Your task to perform on an android device: turn on javascript in the chrome app Image 0: 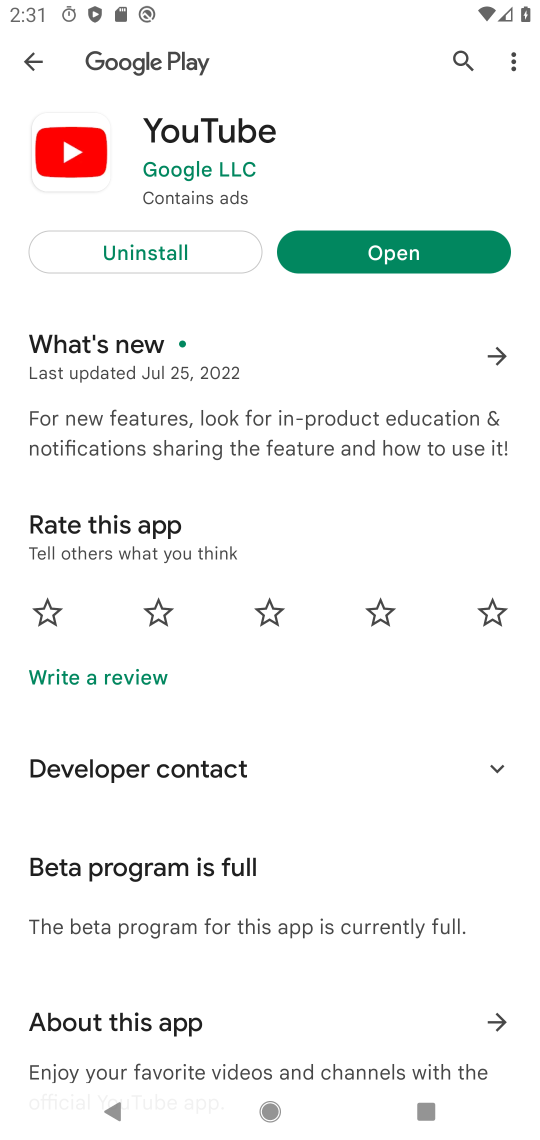
Step 0: press home button
Your task to perform on an android device: turn on javascript in the chrome app Image 1: 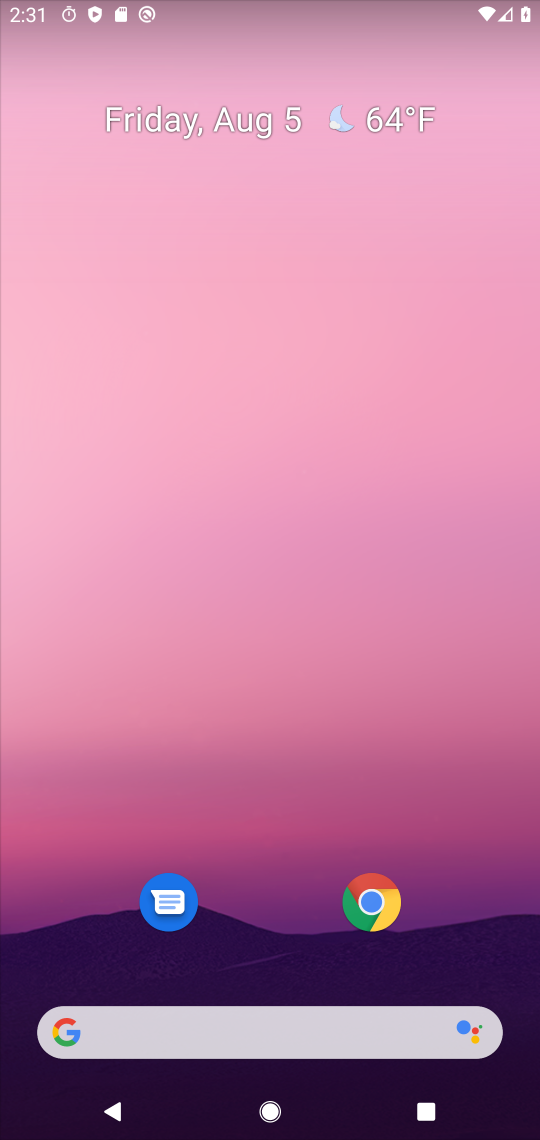
Step 1: drag from (335, 1075) to (259, 277)
Your task to perform on an android device: turn on javascript in the chrome app Image 2: 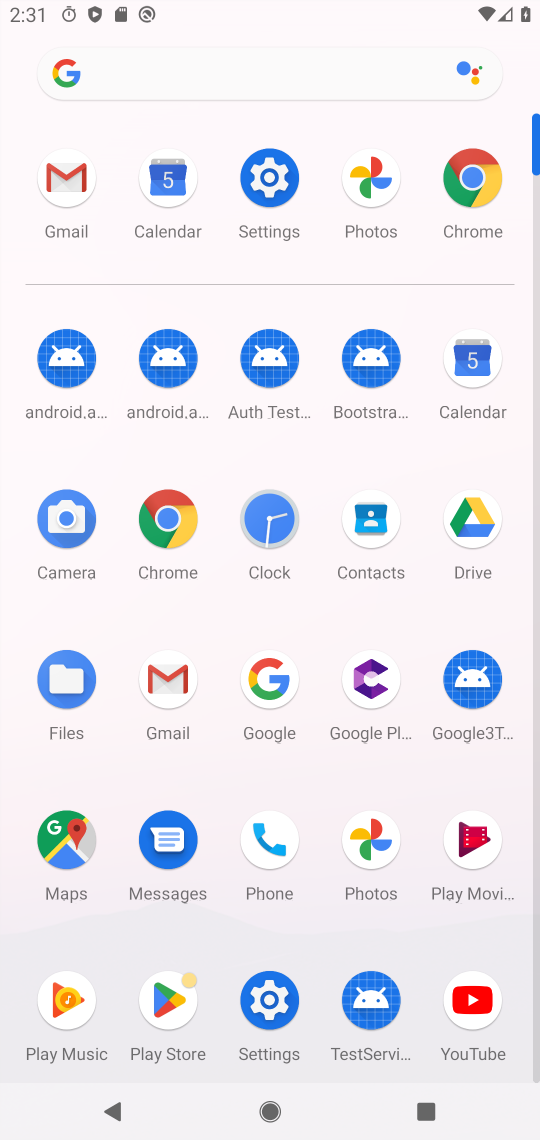
Step 2: click (164, 542)
Your task to perform on an android device: turn on javascript in the chrome app Image 3: 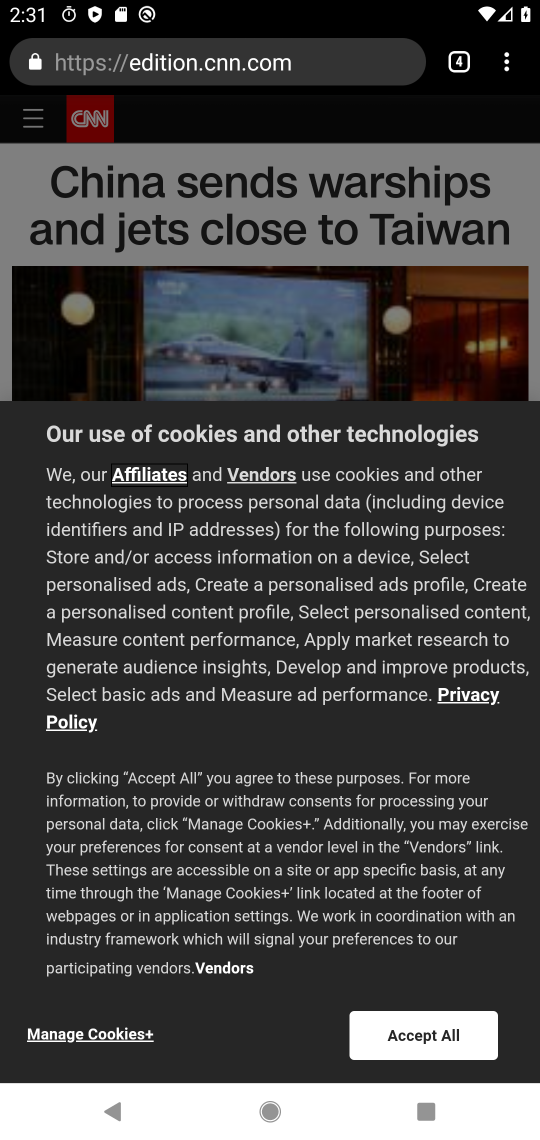
Step 3: click (497, 69)
Your task to perform on an android device: turn on javascript in the chrome app Image 4: 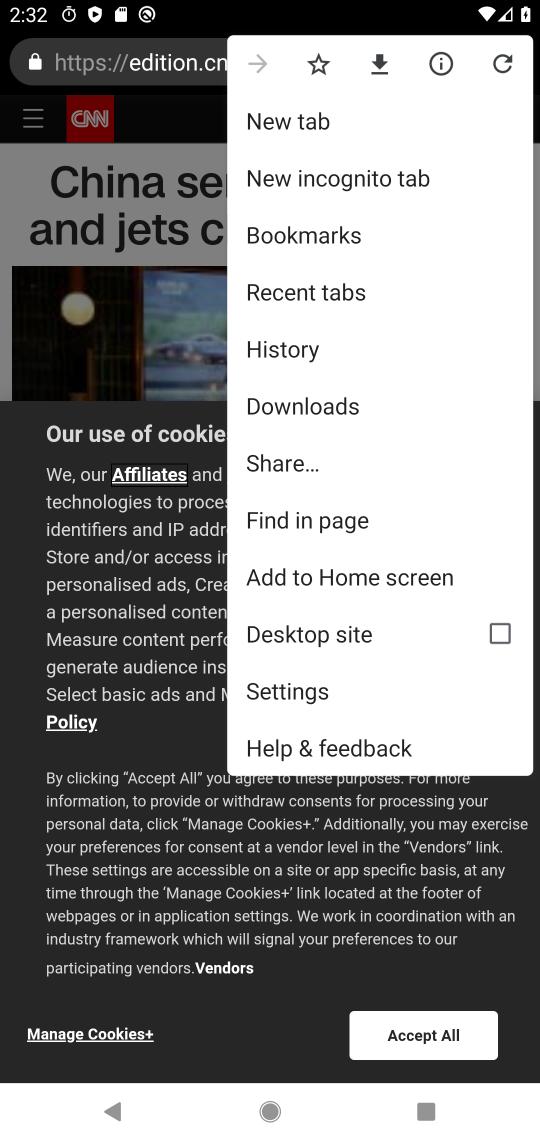
Step 4: click (279, 698)
Your task to perform on an android device: turn on javascript in the chrome app Image 5: 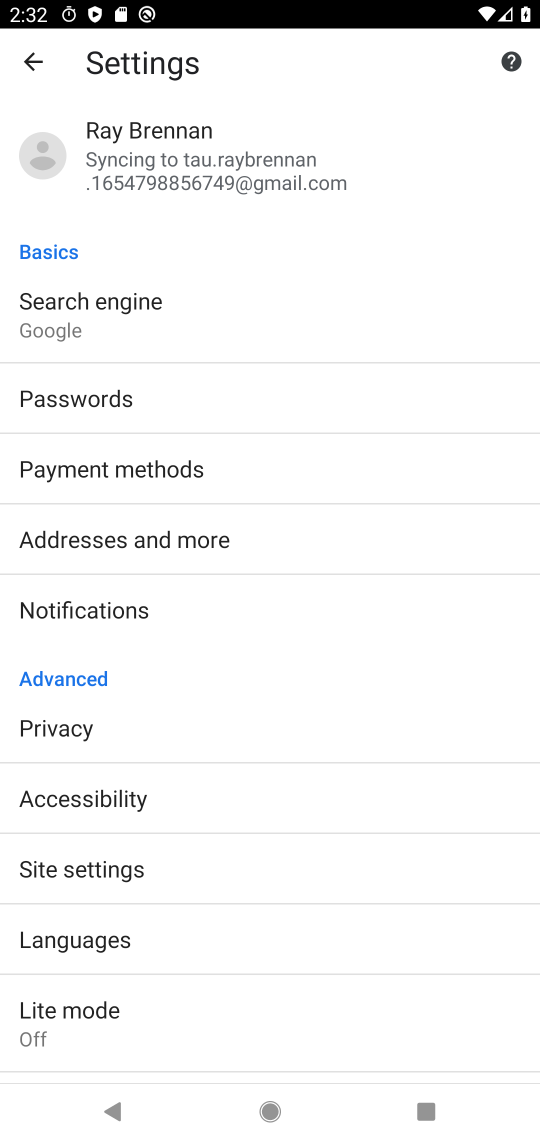
Step 5: click (120, 874)
Your task to perform on an android device: turn on javascript in the chrome app Image 6: 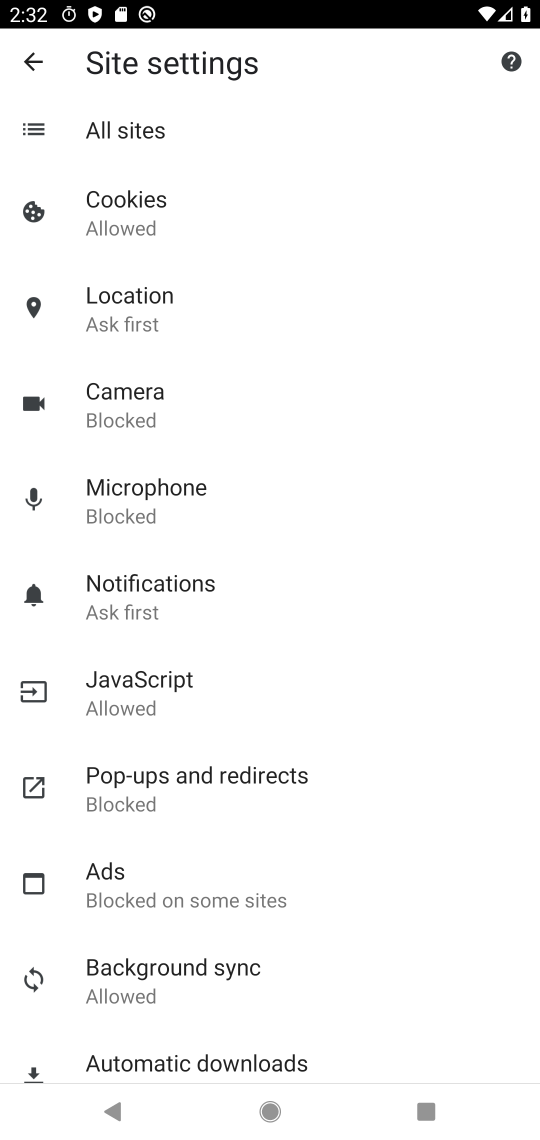
Step 6: click (179, 681)
Your task to perform on an android device: turn on javascript in the chrome app Image 7: 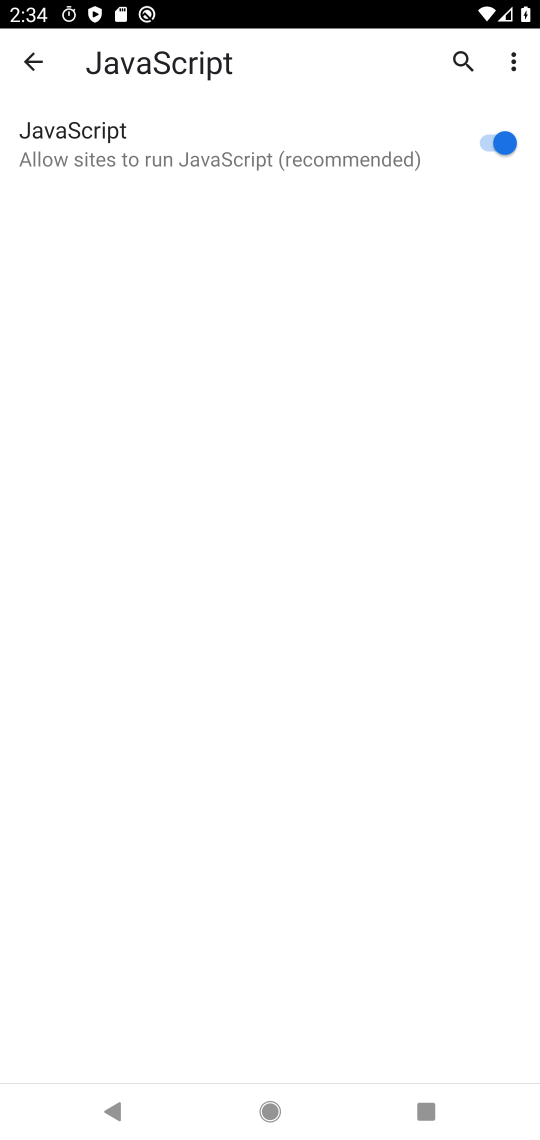
Step 7: task complete